Your task to perform on an android device: turn on location history Image 0: 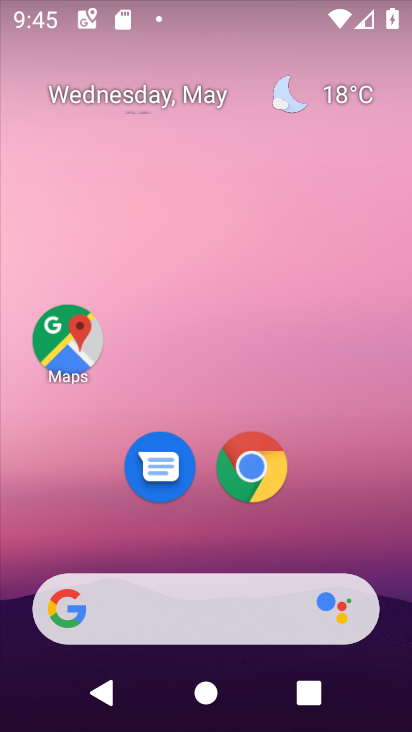
Step 0: drag from (344, 534) to (310, 8)
Your task to perform on an android device: turn on location history Image 1: 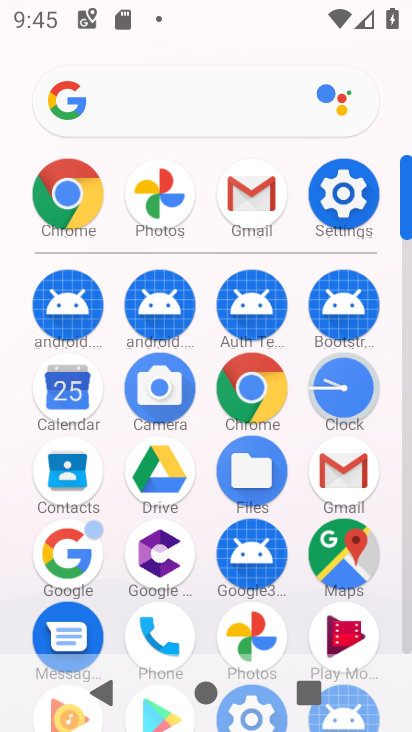
Step 1: click (337, 186)
Your task to perform on an android device: turn on location history Image 2: 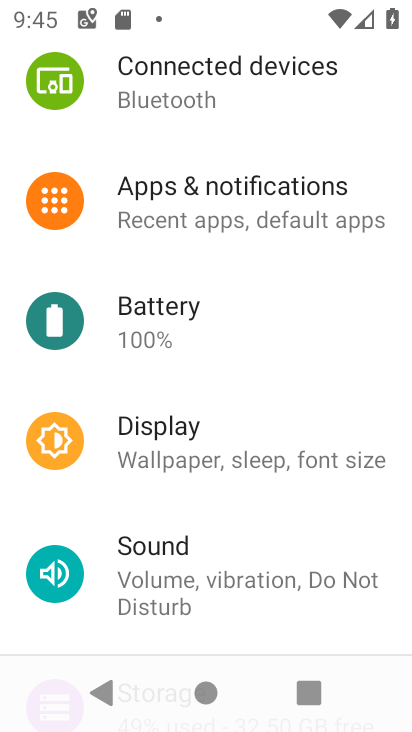
Step 2: drag from (200, 542) to (288, 169)
Your task to perform on an android device: turn on location history Image 3: 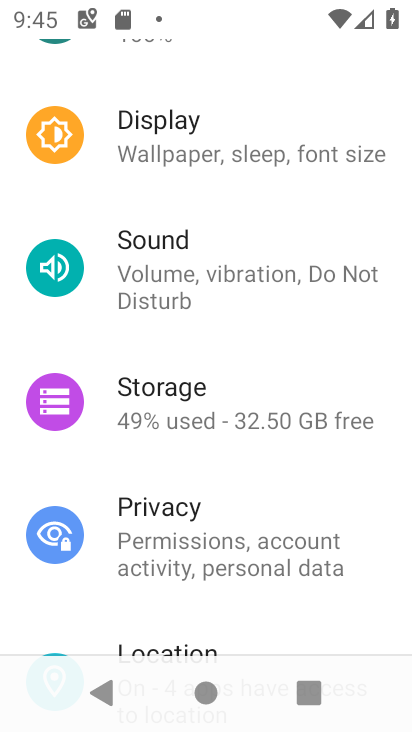
Step 3: drag from (186, 472) to (277, 188)
Your task to perform on an android device: turn on location history Image 4: 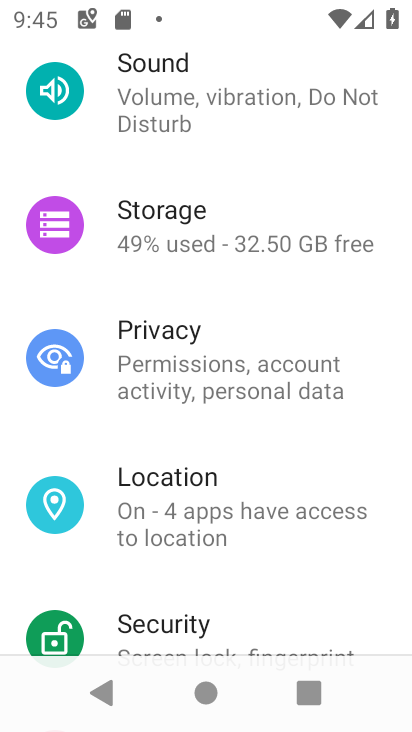
Step 4: click (224, 361)
Your task to perform on an android device: turn on location history Image 5: 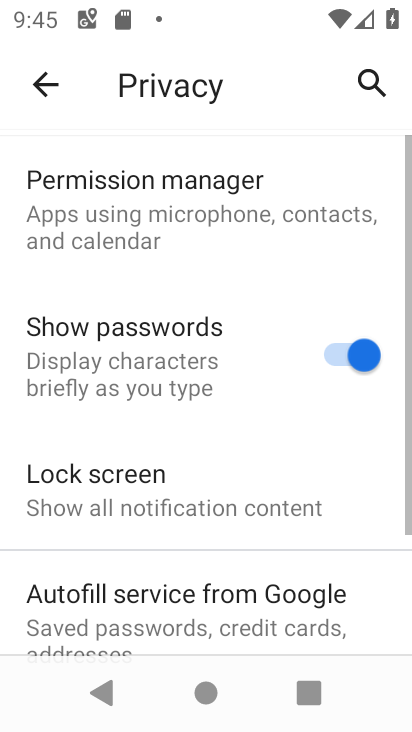
Step 5: click (46, 77)
Your task to perform on an android device: turn on location history Image 6: 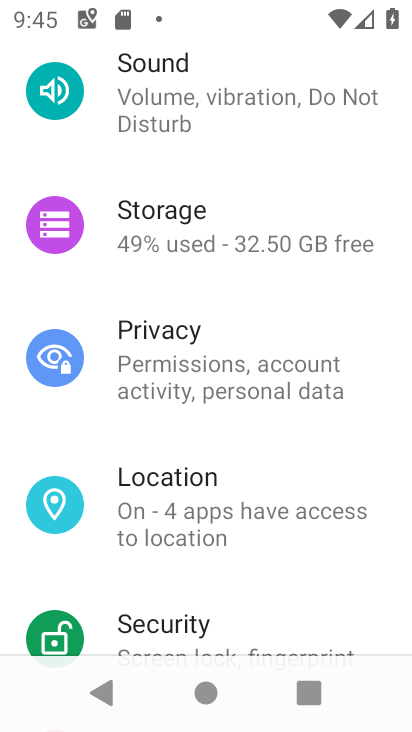
Step 6: click (237, 533)
Your task to perform on an android device: turn on location history Image 7: 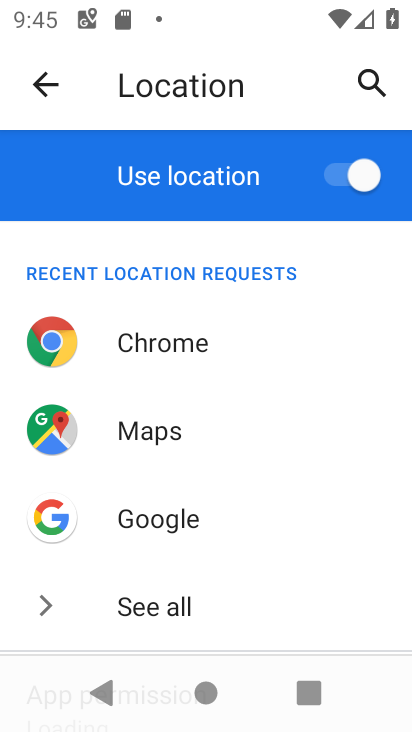
Step 7: drag from (248, 565) to (295, 126)
Your task to perform on an android device: turn on location history Image 8: 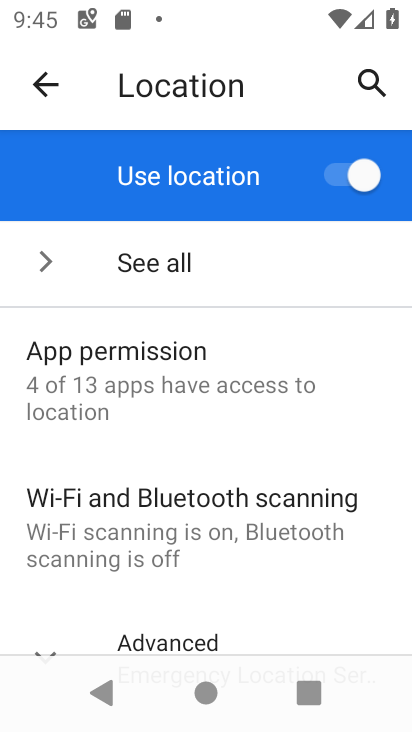
Step 8: drag from (199, 534) to (257, 165)
Your task to perform on an android device: turn on location history Image 9: 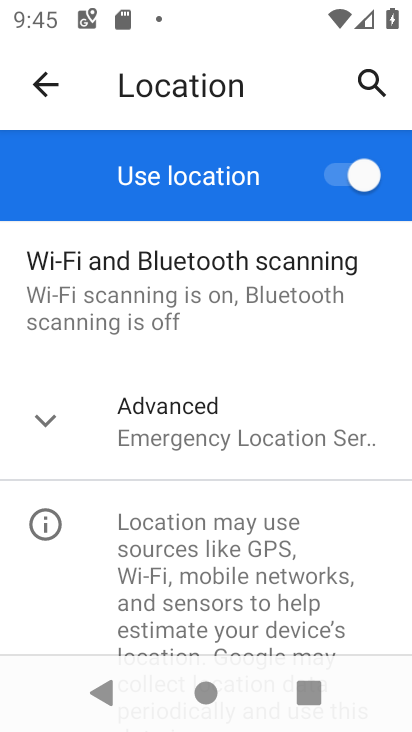
Step 9: click (233, 430)
Your task to perform on an android device: turn on location history Image 10: 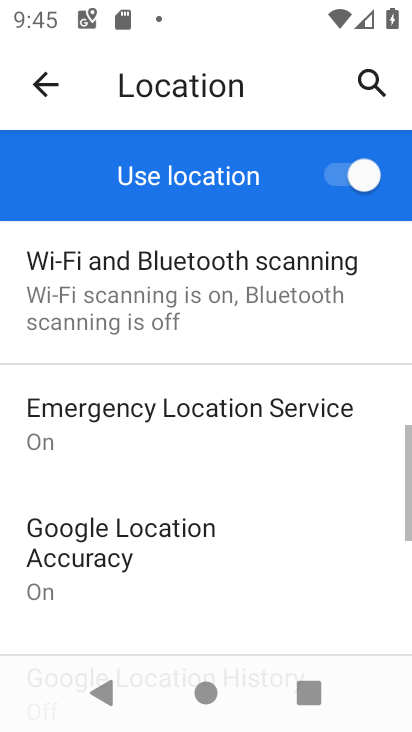
Step 10: drag from (278, 558) to (293, 116)
Your task to perform on an android device: turn on location history Image 11: 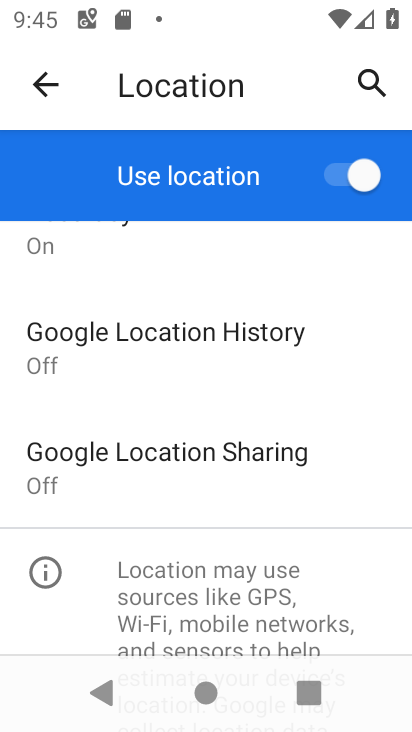
Step 11: click (219, 345)
Your task to perform on an android device: turn on location history Image 12: 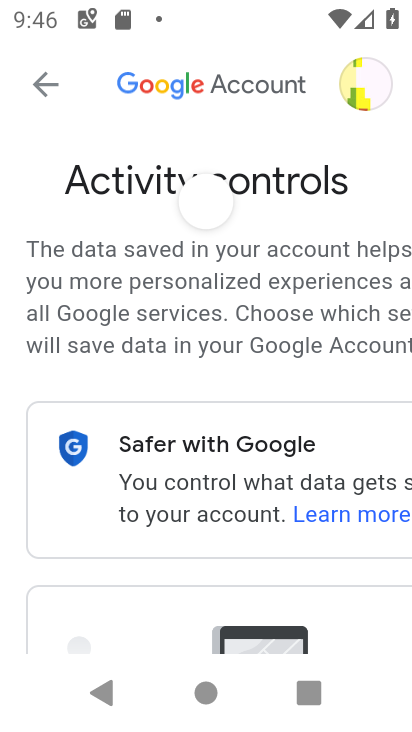
Step 12: drag from (228, 289) to (273, 66)
Your task to perform on an android device: turn on location history Image 13: 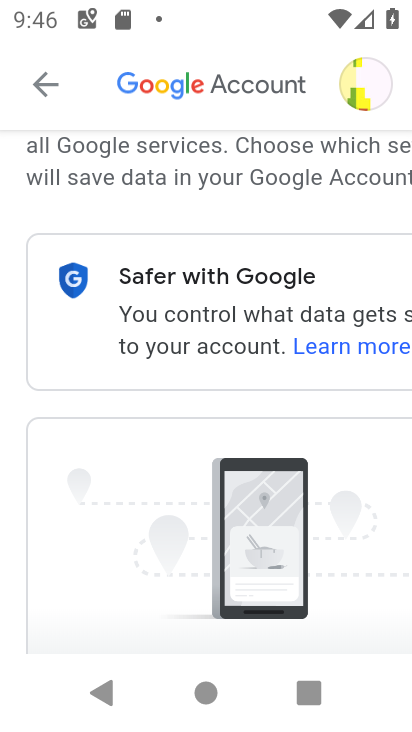
Step 13: drag from (139, 493) to (225, 112)
Your task to perform on an android device: turn on location history Image 14: 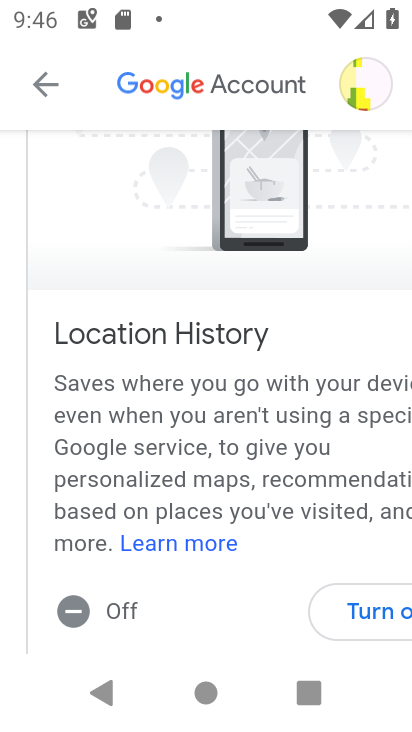
Step 14: click (340, 590)
Your task to perform on an android device: turn on location history Image 15: 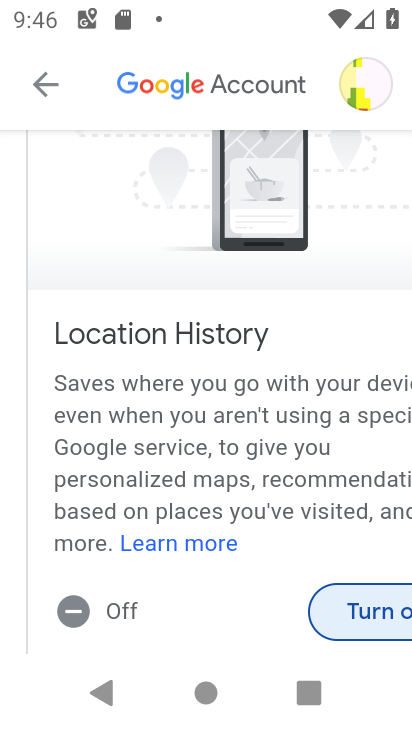
Step 15: click (373, 620)
Your task to perform on an android device: turn on location history Image 16: 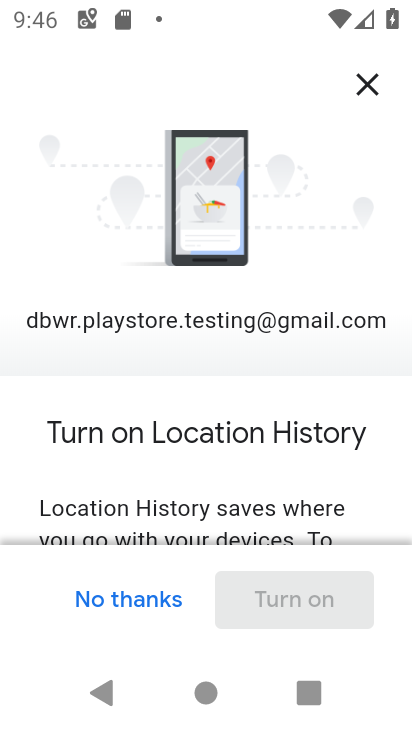
Step 16: drag from (331, 518) to (384, 97)
Your task to perform on an android device: turn on location history Image 17: 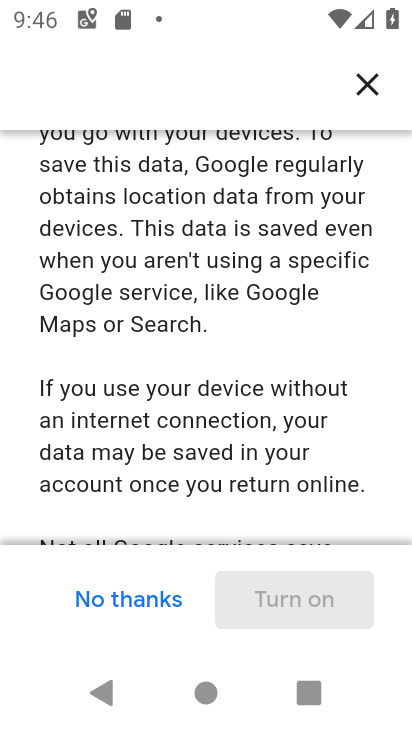
Step 17: drag from (319, 460) to (344, 129)
Your task to perform on an android device: turn on location history Image 18: 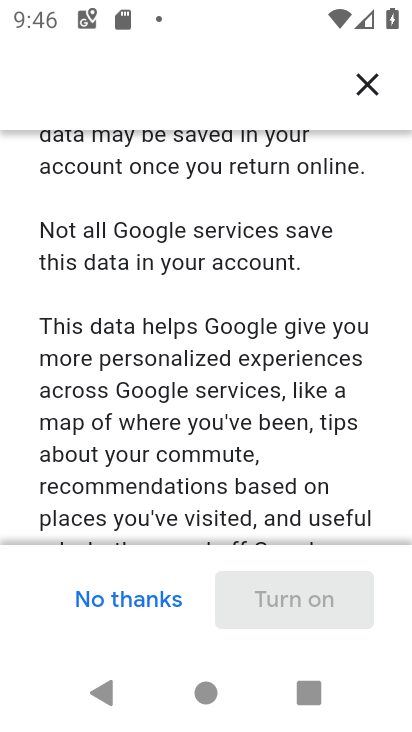
Step 18: drag from (291, 445) to (308, 91)
Your task to perform on an android device: turn on location history Image 19: 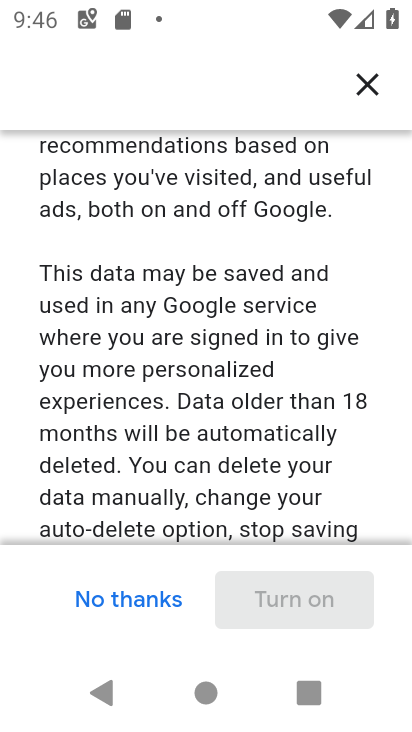
Step 19: drag from (310, 440) to (320, 61)
Your task to perform on an android device: turn on location history Image 20: 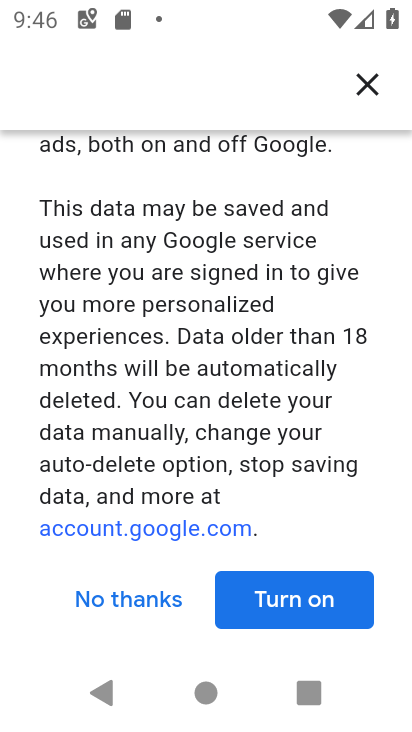
Step 20: click (268, 601)
Your task to perform on an android device: turn on location history Image 21: 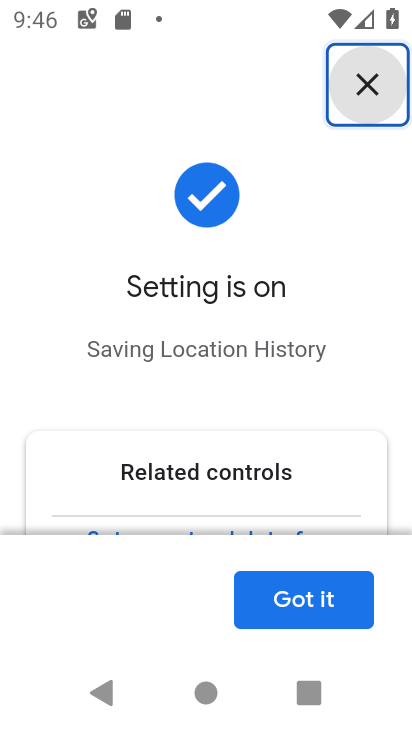
Step 21: task complete